Your task to perform on an android device: Go to internet settings Image 0: 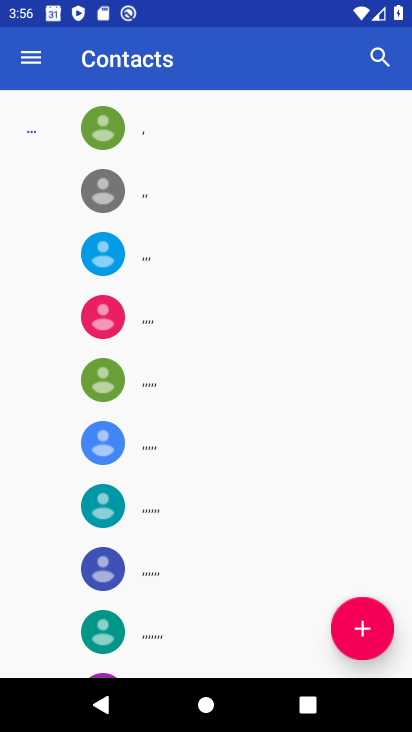
Step 0: drag from (278, 7) to (171, 495)
Your task to perform on an android device: Go to internet settings Image 1: 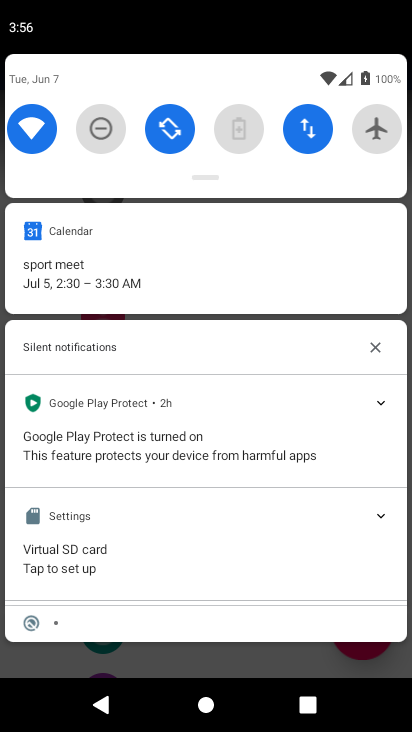
Step 1: click (314, 116)
Your task to perform on an android device: Go to internet settings Image 2: 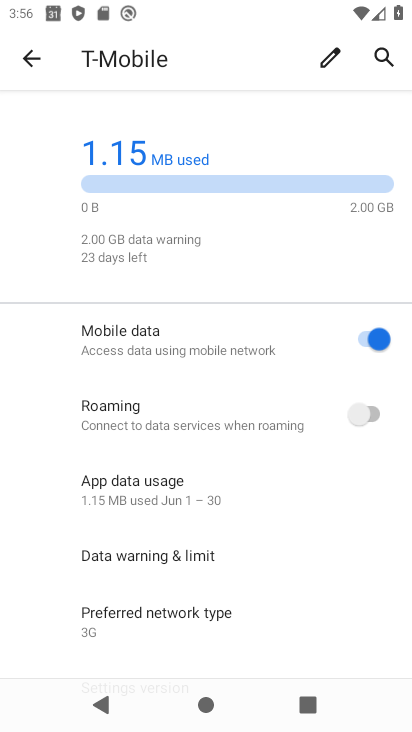
Step 2: task complete